Your task to perform on an android device: Turn off the flashlight Image 0: 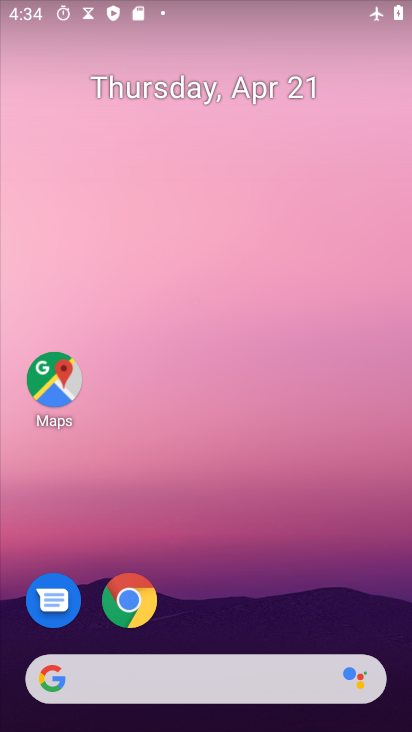
Step 0: drag from (227, 602) to (262, 103)
Your task to perform on an android device: Turn off the flashlight Image 1: 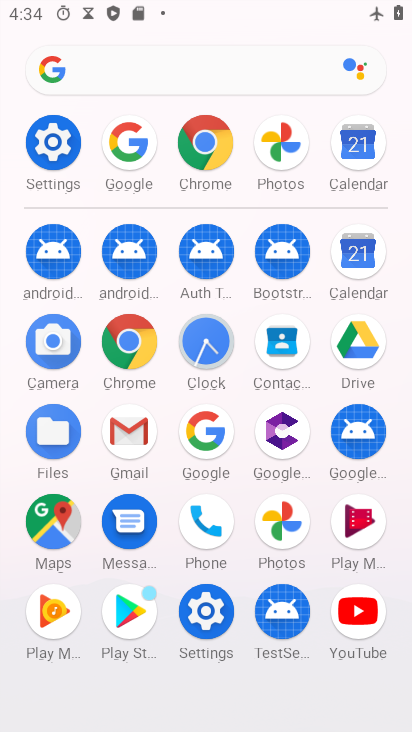
Step 1: click (54, 139)
Your task to perform on an android device: Turn off the flashlight Image 2: 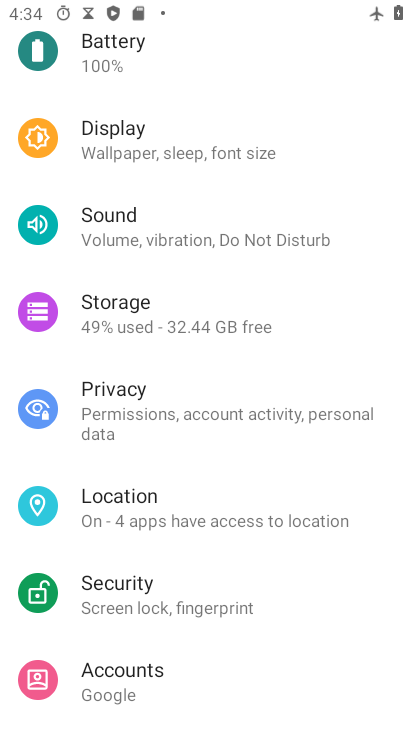
Step 2: drag from (167, 567) to (190, 472)
Your task to perform on an android device: Turn off the flashlight Image 3: 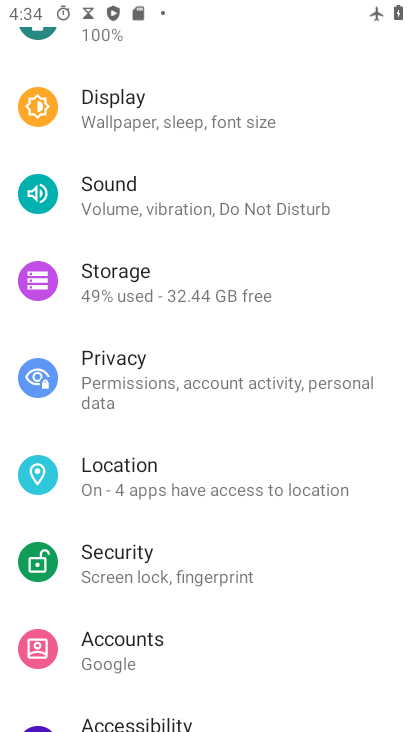
Step 3: drag from (170, 619) to (225, 492)
Your task to perform on an android device: Turn off the flashlight Image 4: 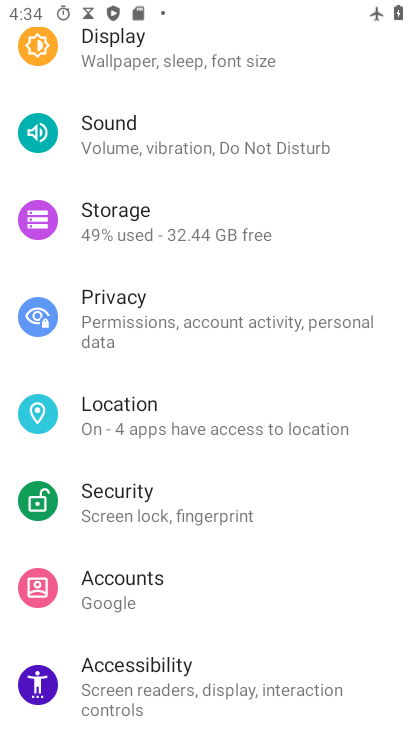
Step 4: drag from (190, 574) to (237, 465)
Your task to perform on an android device: Turn off the flashlight Image 5: 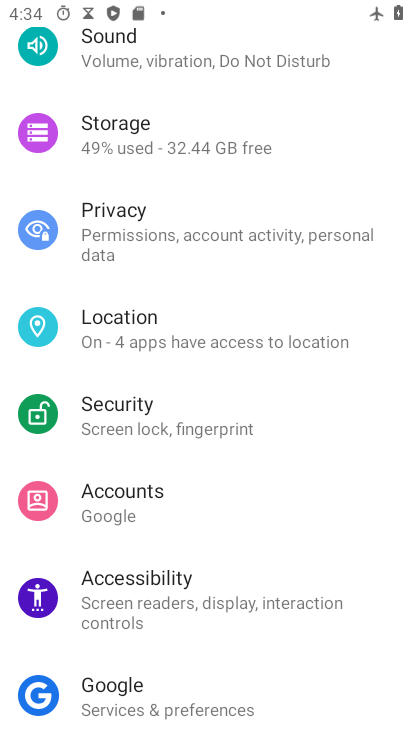
Step 5: drag from (208, 544) to (235, 457)
Your task to perform on an android device: Turn off the flashlight Image 6: 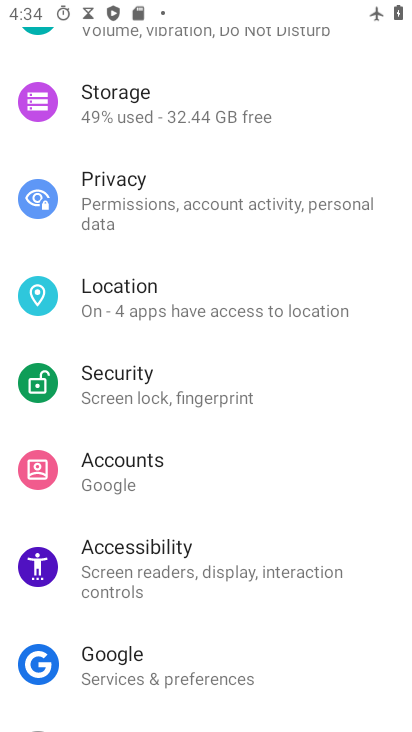
Step 6: drag from (203, 602) to (245, 502)
Your task to perform on an android device: Turn off the flashlight Image 7: 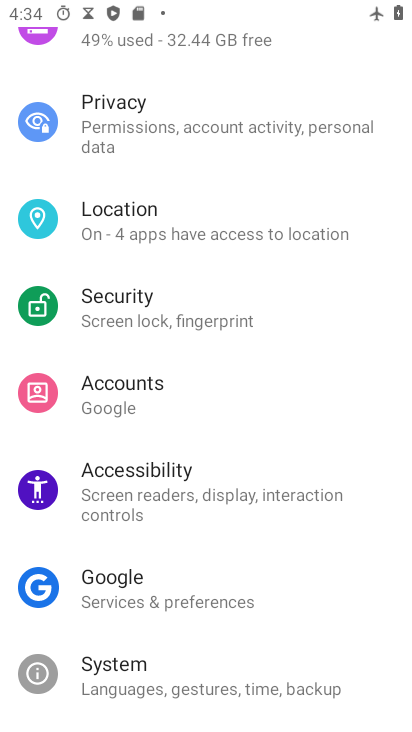
Step 7: drag from (210, 576) to (285, 453)
Your task to perform on an android device: Turn off the flashlight Image 8: 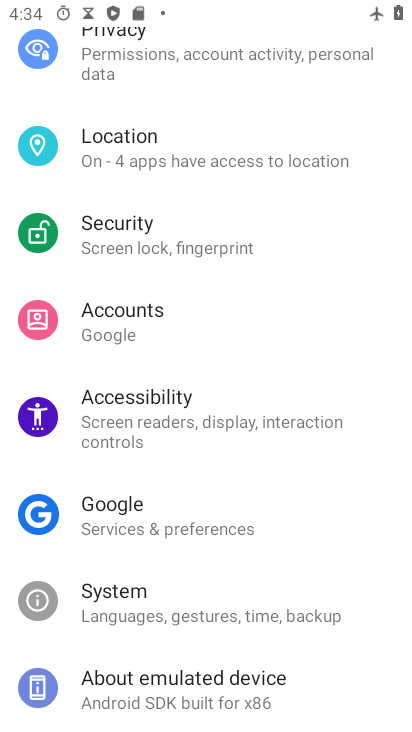
Step 8: drag from (223, 546) to (263, 472)
Your task to perform on an android device: Turn off the flashlight Image 9: 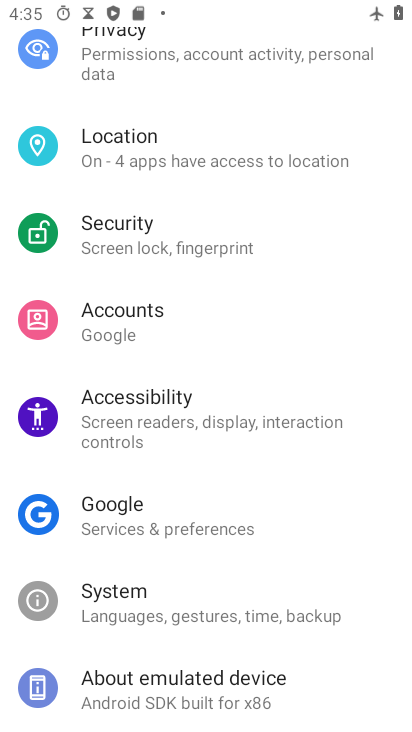
Step 9: drag from (181, 571) to (231, 460)
Your task to perform on an android device: Turn off the flashlight Image 10: 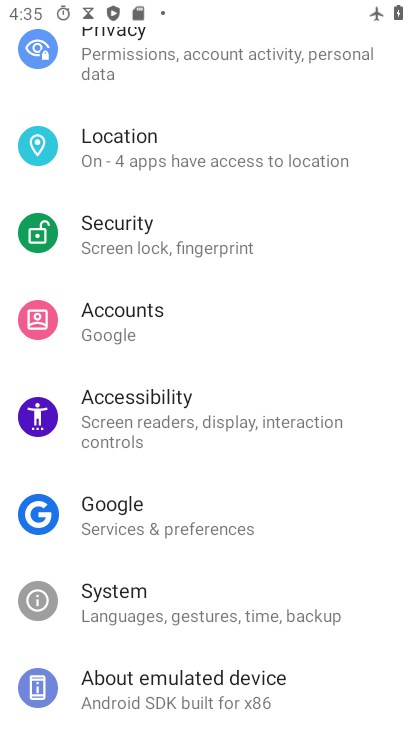
Step 10: click (204, 605)
Your task to perform on an android device: Turn off the flashlight Image 11: 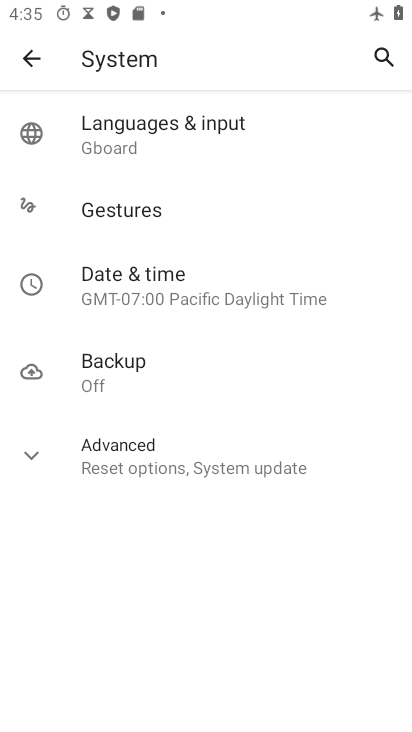
Step 11: press back button
Your task to perform on an android device: Turn off the flashlight Image 12: 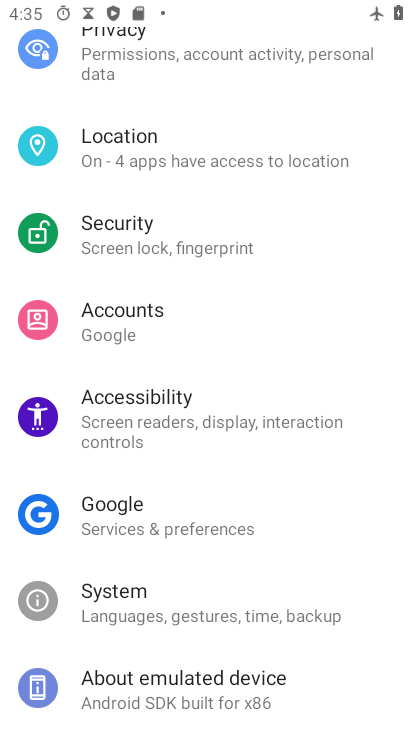
Step 12: drag from (255, 378) to (264, 460)
Your task to perform on an android device: Turn off the flashlight Image 13: 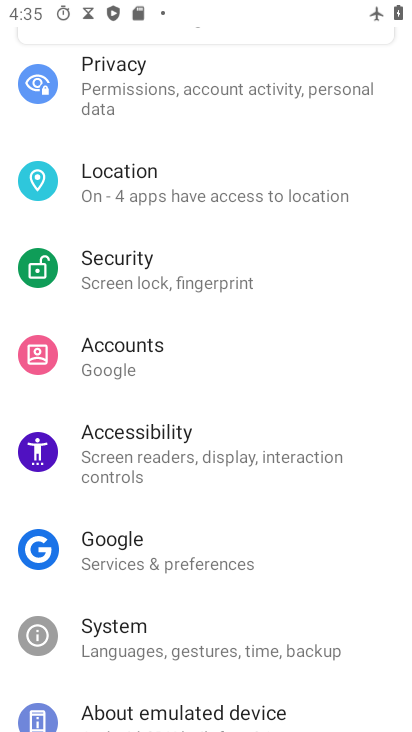
Step 13: drag from (238, 287) to (254, 435)
Your task to perform on an android device: Turn off the flashlight Image 14: 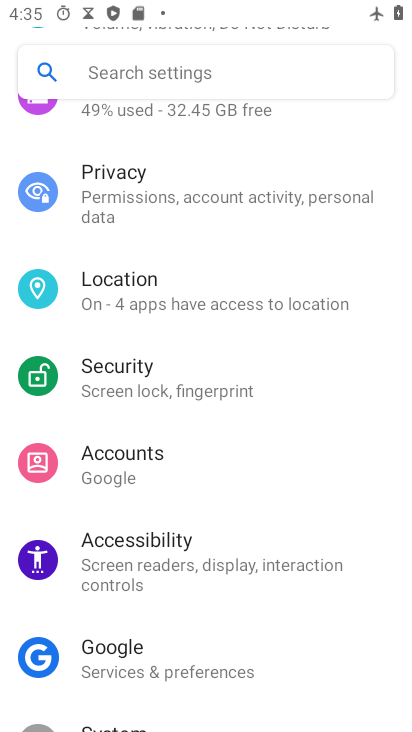
Step 14: drag from (201, 395) to (204, 497)
Your task to perform on an android device: Turn off the flashlight Image 15: 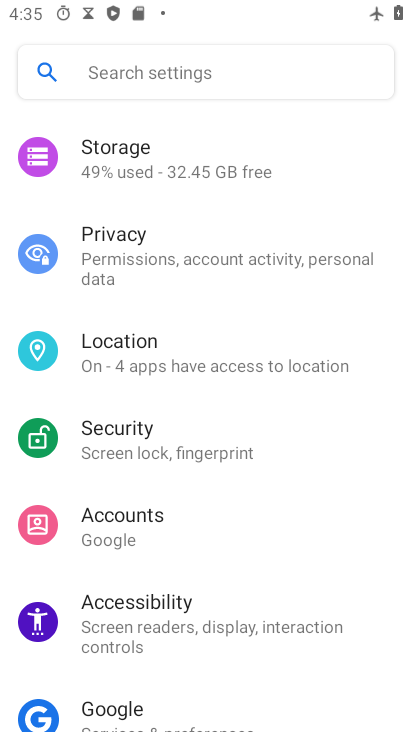
Step 15: drag from (227, 331) to (207, 479)
Your task to perform on an android device: Turn off the flashlight Image 16: 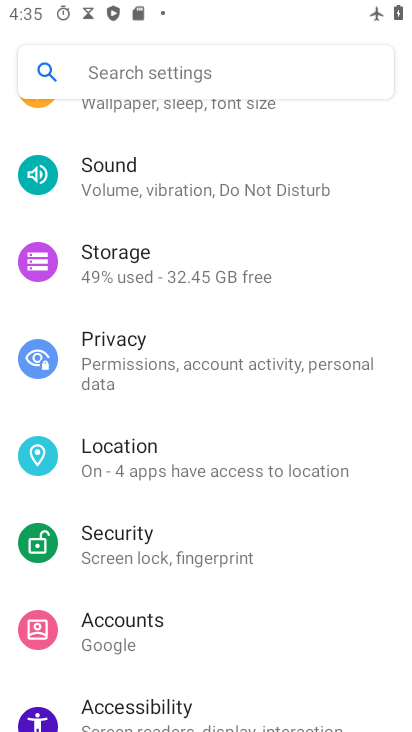
Step 16: drag from (210, 285) to (229, 416)
Your task to perform on an android device: Turn off the flashlight Image 17: 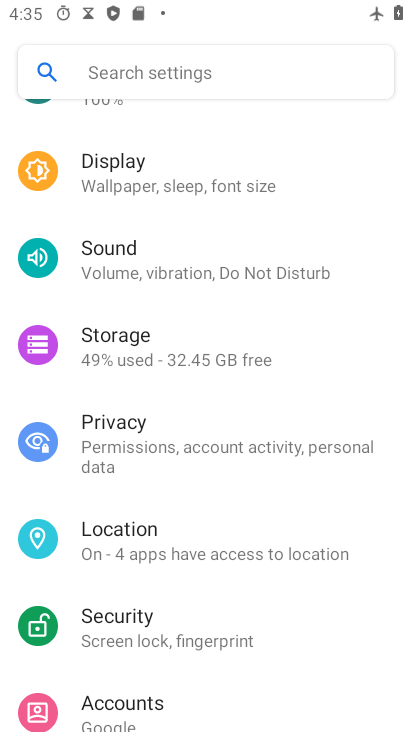
Step 17: click (203, 199)
Your task to perform on an android device: Turn off the flashlight Image 18: 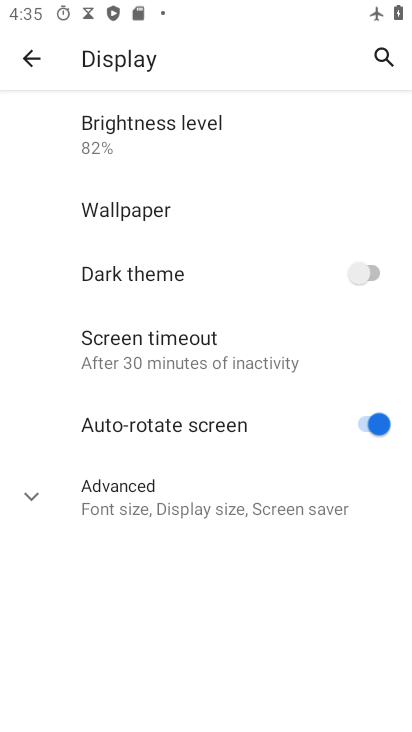
Step 18: task complete